Your task to perform on an android device: install app "WhatsApp Messenger" Image 0: 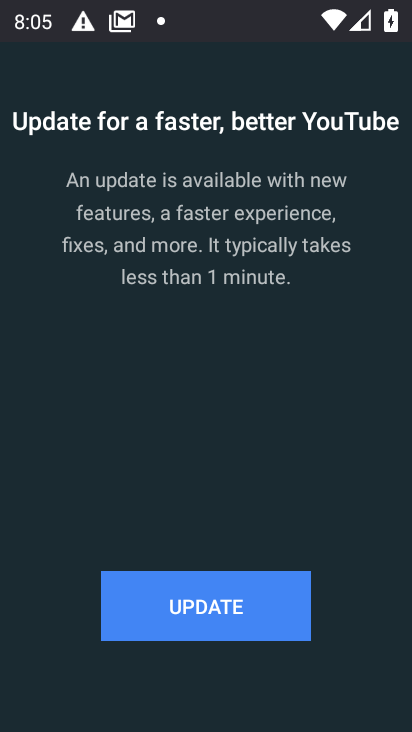
Step 0: press home button
Your task to perform on an android device: install app "WhatsApp Messenger" Image 1: 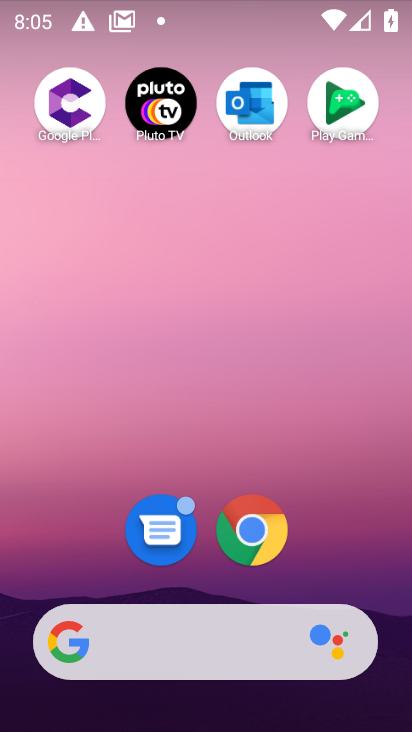
Step 1: drag from (329, 531) to (274, 7)
Your task to perform on an android device: install app "WhatsApp Messenger" Image 2: 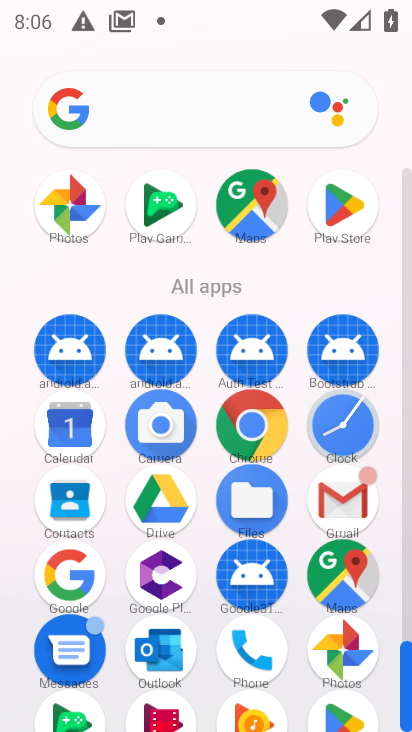
Step 2: click (331, 230)
Your task to perform on an android device: install app "WhatsApp Messenger" Image 3: 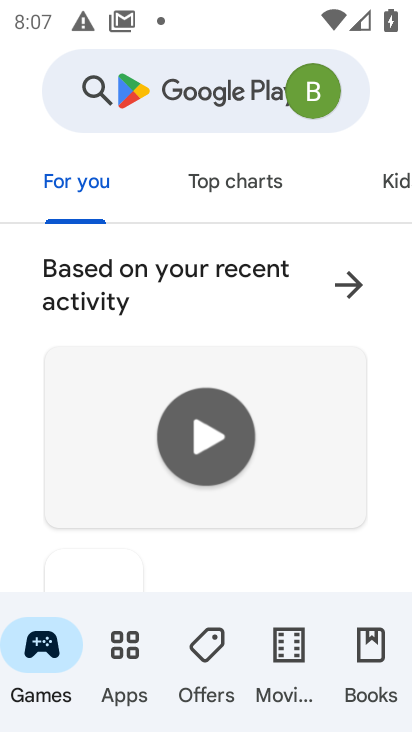
Step 3: click (232, 100)
Your task to perform on an android device: install app "WhatsApp Messenger" Image 4: 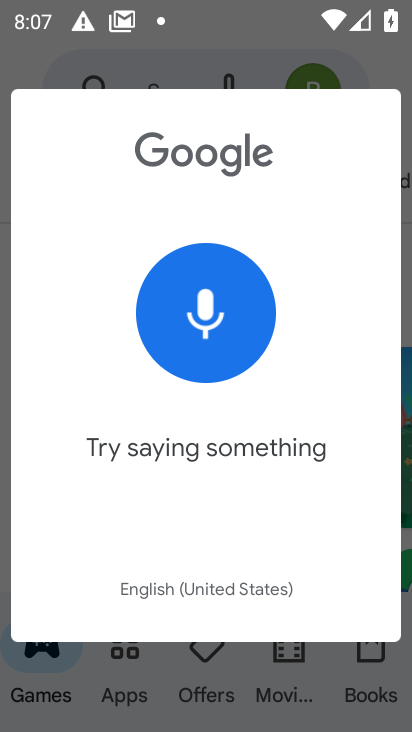
Step 4: press back button
Your task to perform on an android device: install app "WhatsApp Messenger" Image 5: 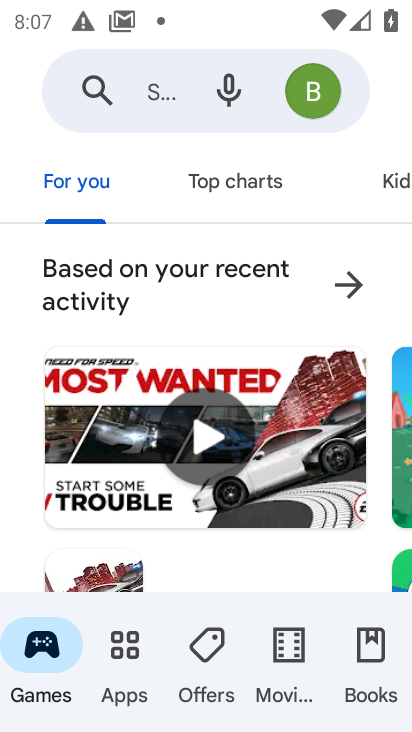
Step 5: click (163, 96)
Your task to perform on an android device: install app "WhatsApp Messenger" Image 6: 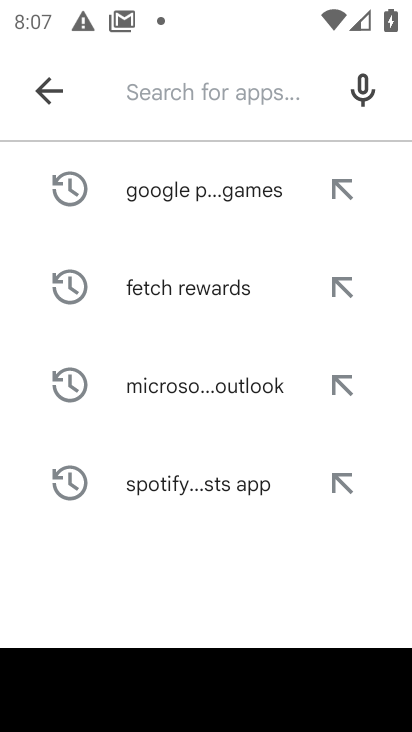
Step 6: type "WhatsApp Messenger"
Your task to perform on an android device: install app "WhatsApp Messenger" Image 7: 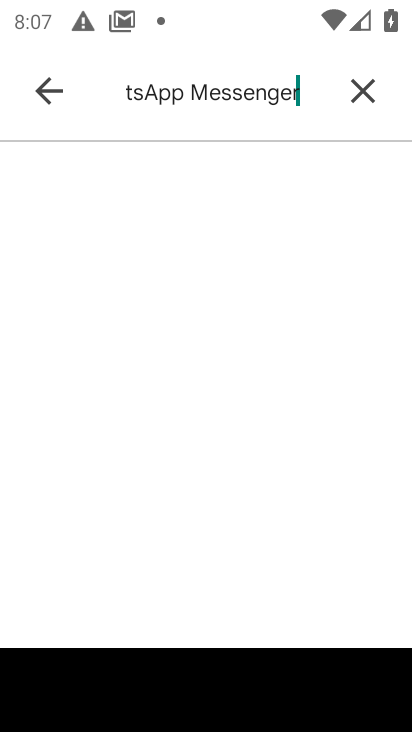
Step 7: press enter
Your task to perform on an android device: install app "WhatsApp Messenger" Image 8: 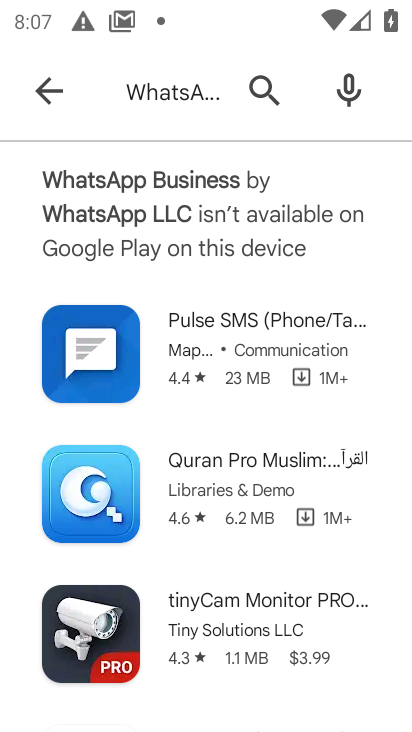
Step 8: task complete